Your task to perform on an android device: Is it going to rain tomorrow? Image 0: 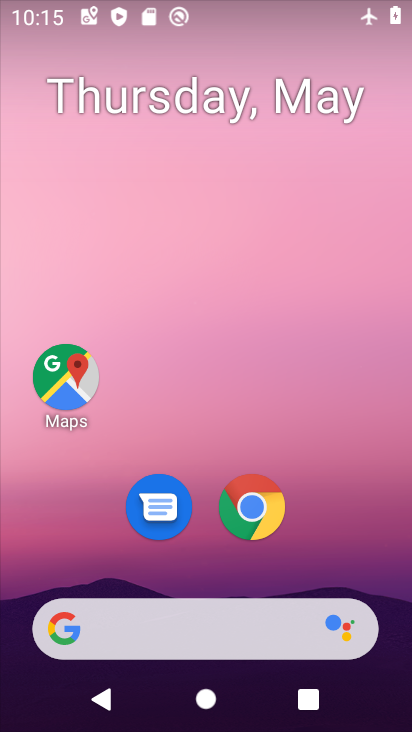
Step 0: drag from (289, 650) to (274, 65)
Your task to perform on an android device: Is it going to rain tomorrow? Image 1: 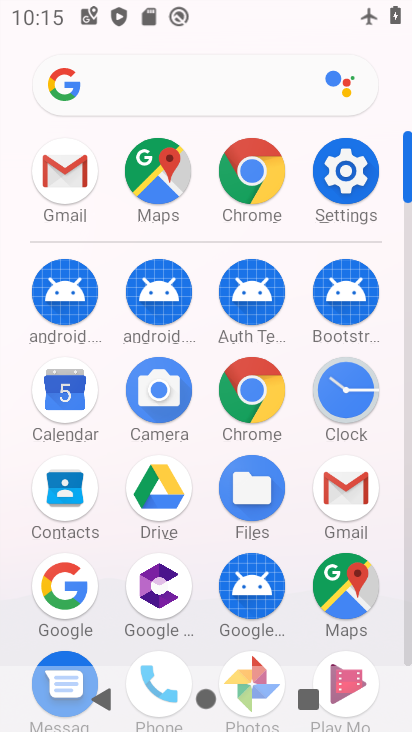
Step 1: click (77, 594)
Your task to perform on an android device: Is it going to rain tomorrow? Image 2: 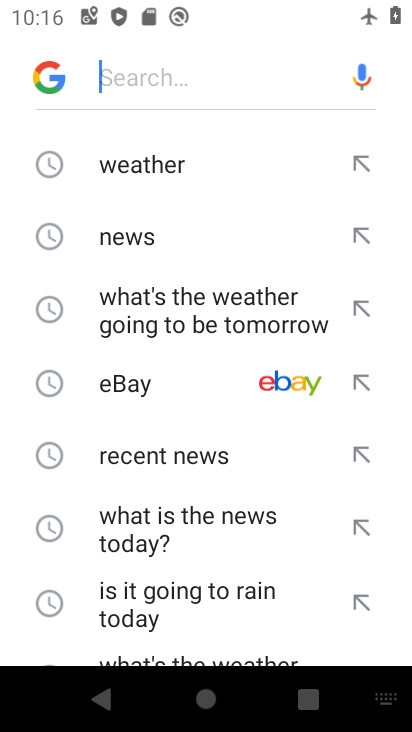
Step 2: click (289, 161)
Your task to perform on an android device: Is it going to rain tomorrow? Image 3: 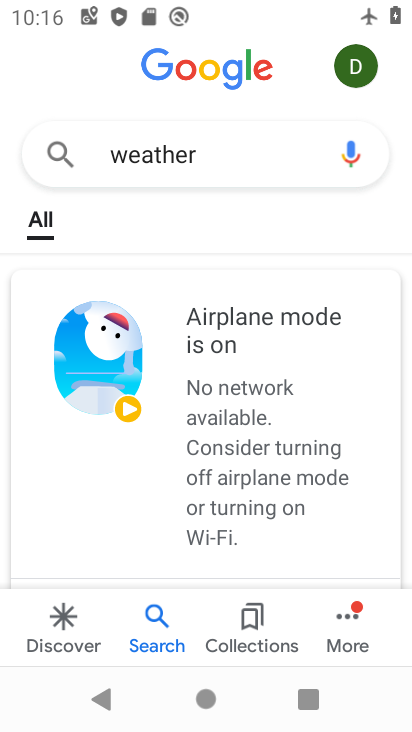
Step 3: task complete